Your task to perform on an android device: What is the recent news? Image 0: 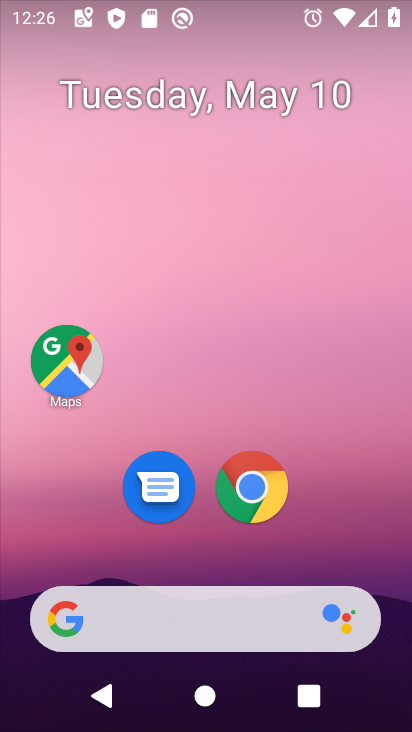
Step 0: drag from (328, 531) to (304, 180)
Your task to perform on an android device: What is the recent news? Image 1: 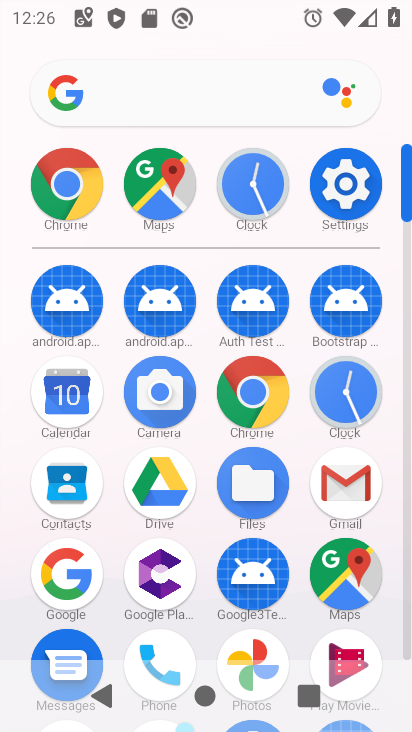
Step 1: click (73, 202)
Your task to perform on an android device: What is the recent news? Image 2: 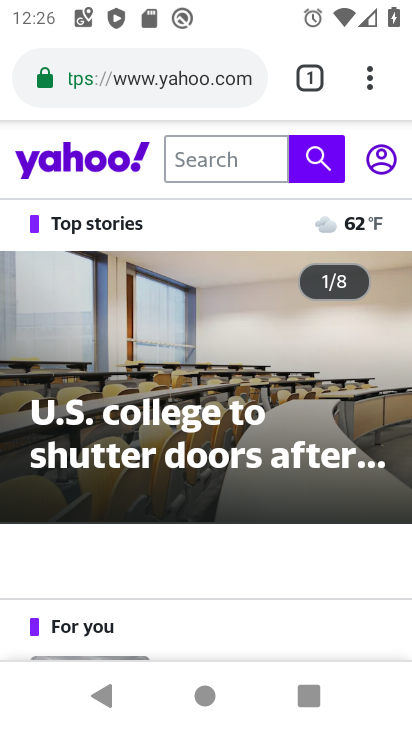
Step 2: click (304, 82)
Your task to perform on an android device: What is the recent news? Image 3: 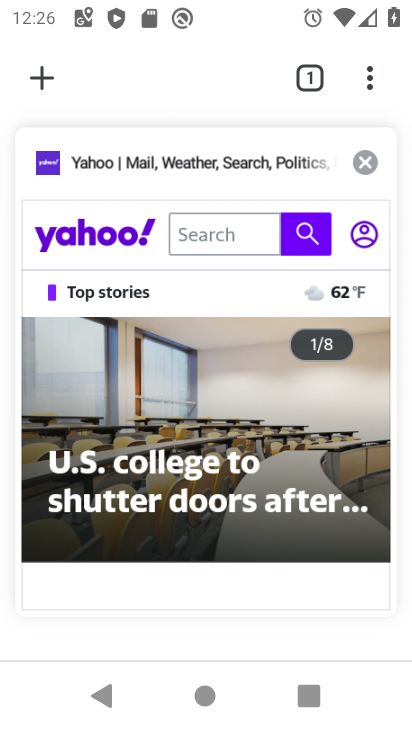
Step 3: click (33, 66)
Your task to perform on an android device: What is the recent news? Image 4: 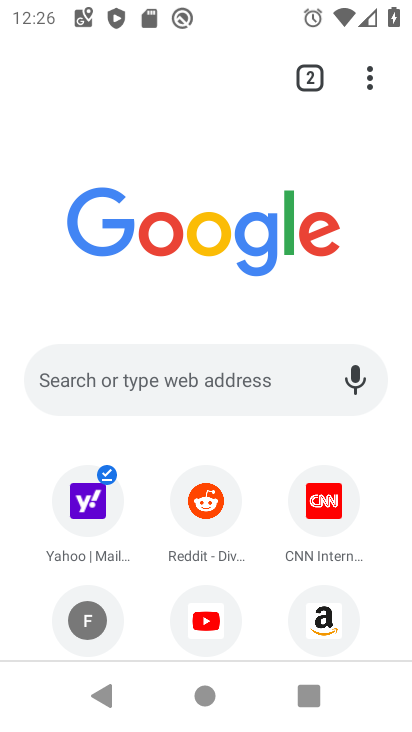
Step 4: task complete